Your task to perform on an android device: Clear all items from cart on bestbuy.com. Add macbook pro to the cart on bestbuy.com, then select checkout. Image 0: 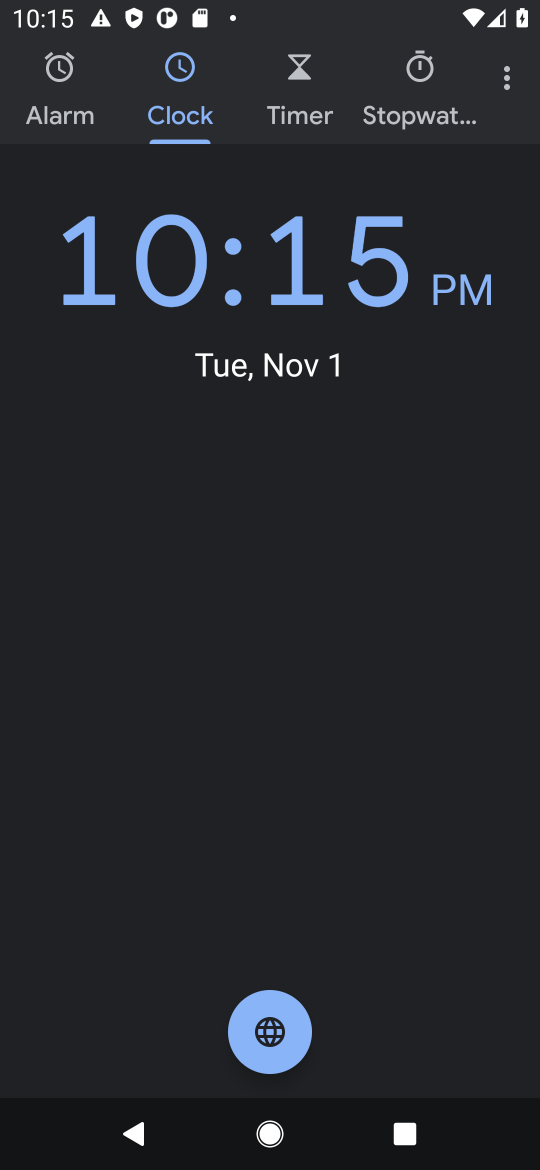
Step 0: press home button
Your task to perform on an android device: Clear all items from cart on bestbuy.com. Add macbook pro to the cart on bestbuy.com, then select checkout. Image 1: 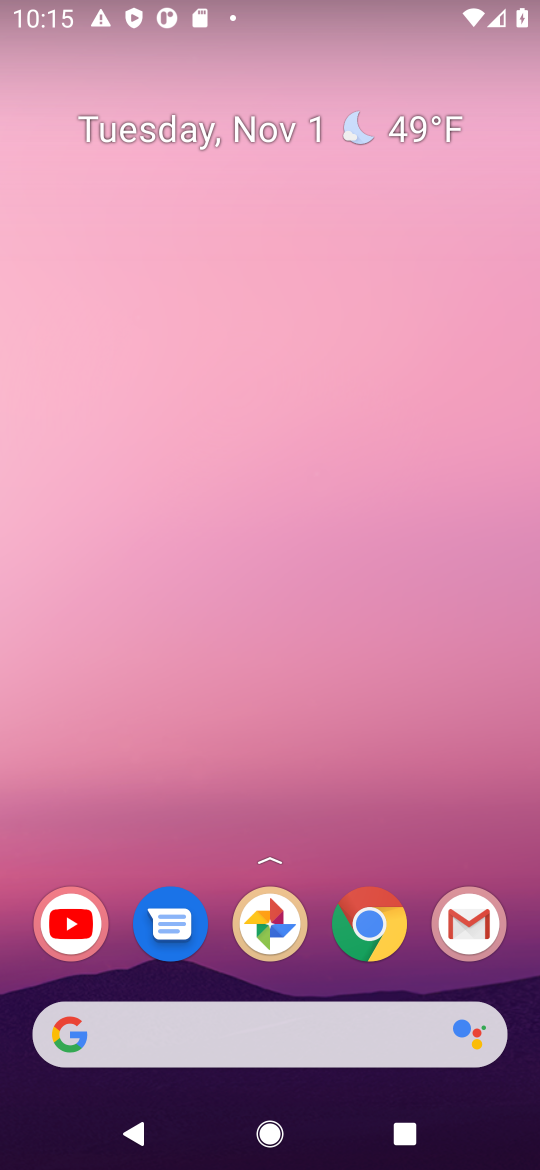
Step 1: click (380, 937)
Your task to perform on an android device: Clear all items from cart on bestbuy.com. Add macbook pro to the cart on bestbuy.com, then select checkout. Image 2: 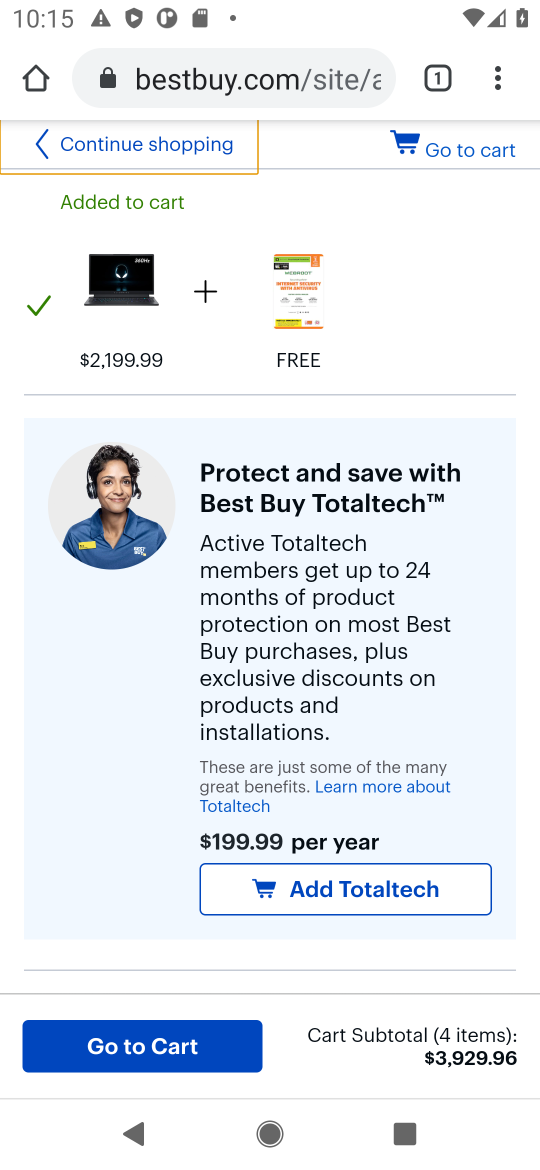
Step 2: click (269, 87)
Your task to perform on an android device: Clear all items from cart on bestbuy.com. Add macbook pro to the cart on bestbuy.com, then select checkout. Image 3: 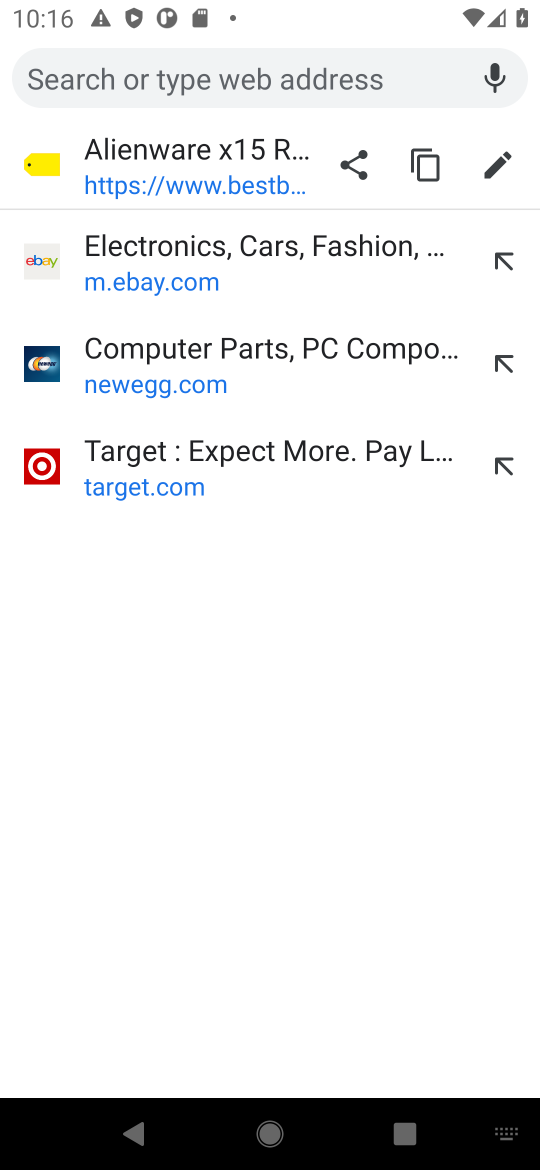
Step 3: press back button
Your task to perform on an android device: Clear all items from cart on bestbuy.com. Add macbook pro to the cart on bestbuy.com, then select checkout. Image 4: 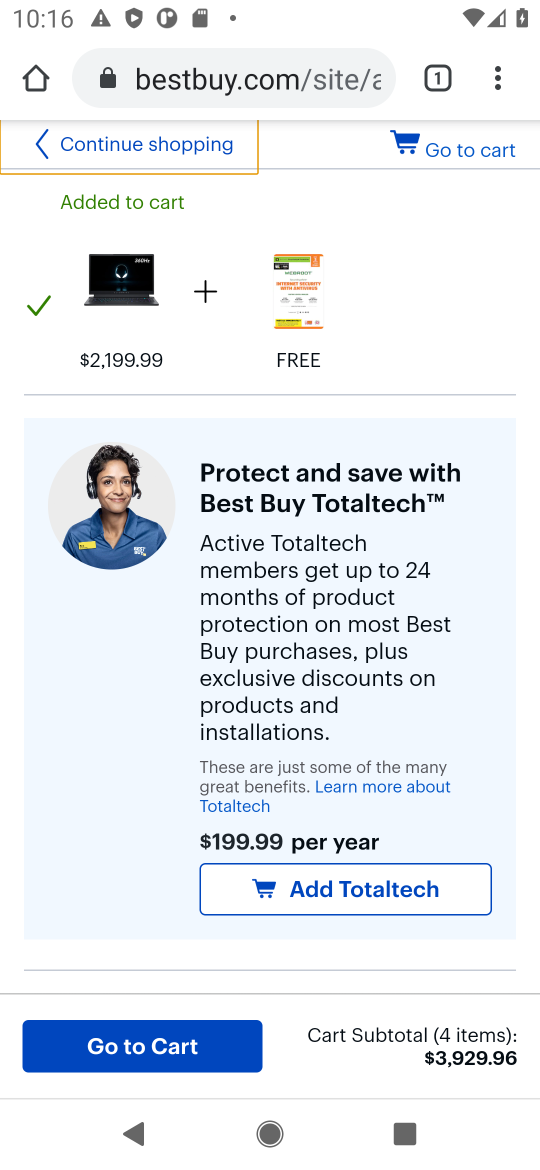
Step 4: press back button
Your task to perform on an android device: Clear all items from cart on bestbuy.com. Add macbook pro to the cart on bestbuy.com, then select checkout. Image 5: 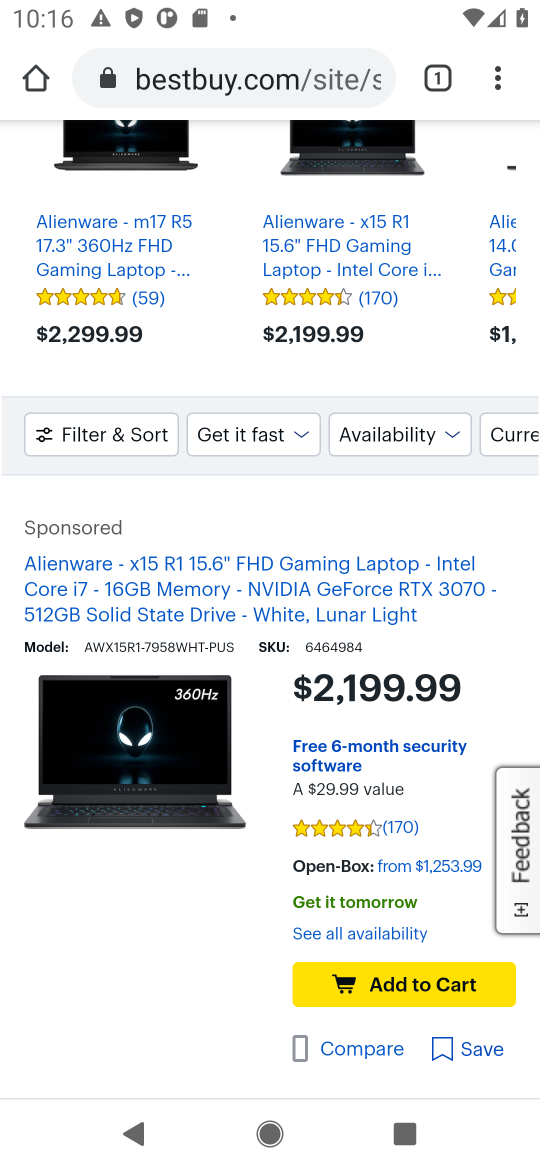
Step 5: drag from (386, 627) to (328, 1049)
Your task to perform on an android device: Clear all items from cart on bestbuy.com. Add macbook pro to the cart on bestbuy.com, then select checkout. Image 6: 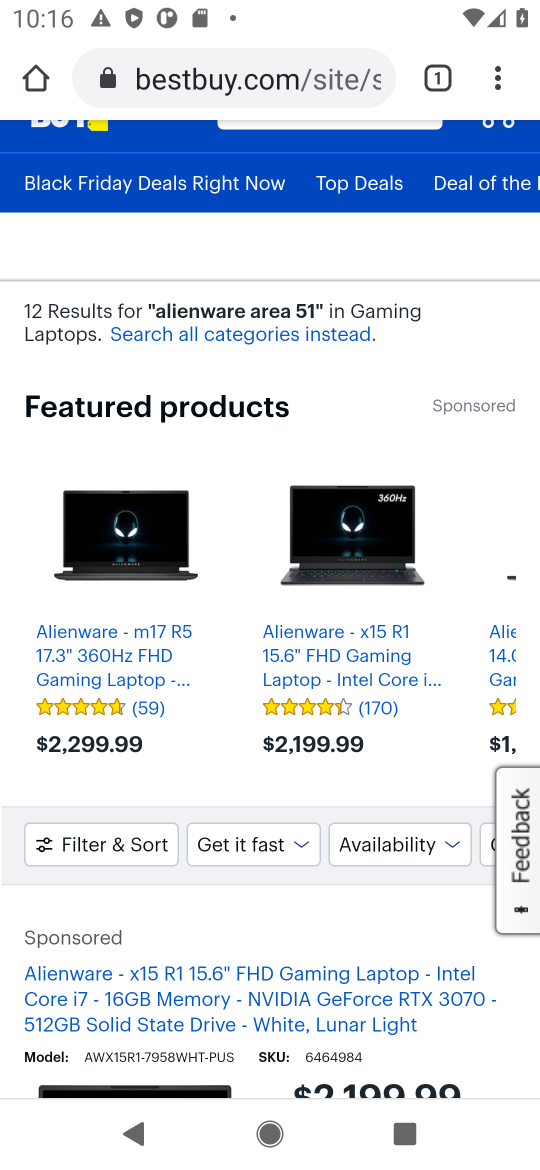
Step 6: drag from (476, 347) to (417, 634)
Your task to perform on an android device: Clear all items from cart on bestbuy.com. Add macbook pro to the cart on bestbuy.com, then select checkout. Image 7: 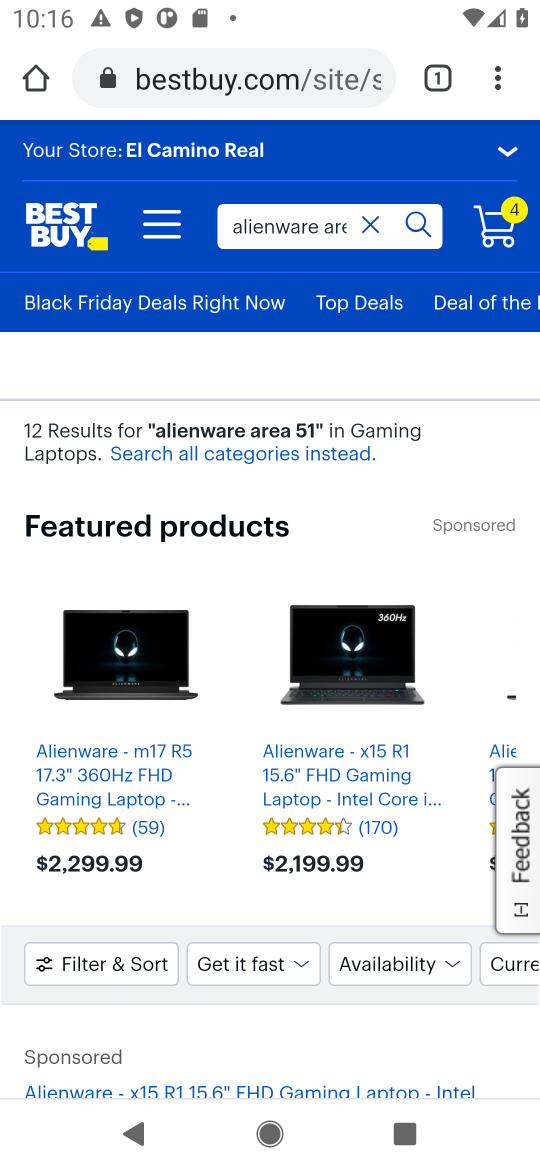
Step 7: click (496, 225)
Your task to perform on an android device: Clear all items from cart on bestbuy.com. Add macbook pro to the cart on bestbuy.com, then select checkout. Image 8: 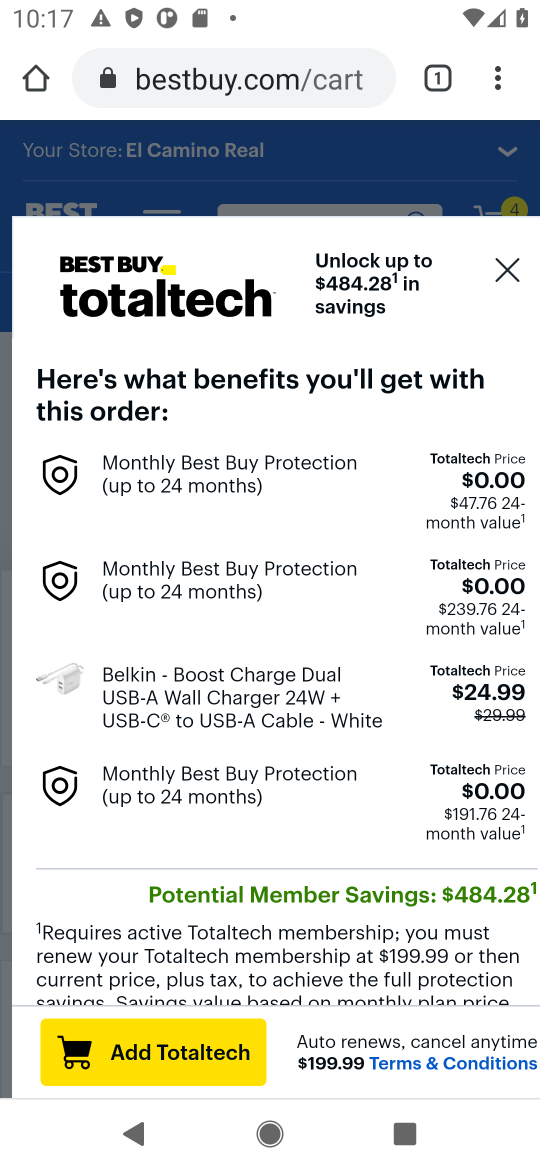
Step 8: click (509, 270)
Your task to perform on an android device: Clear all items from cart on bestbuy.com. Add macbook pro to the cart on bestbuy.com, then select checkout. Image 9: 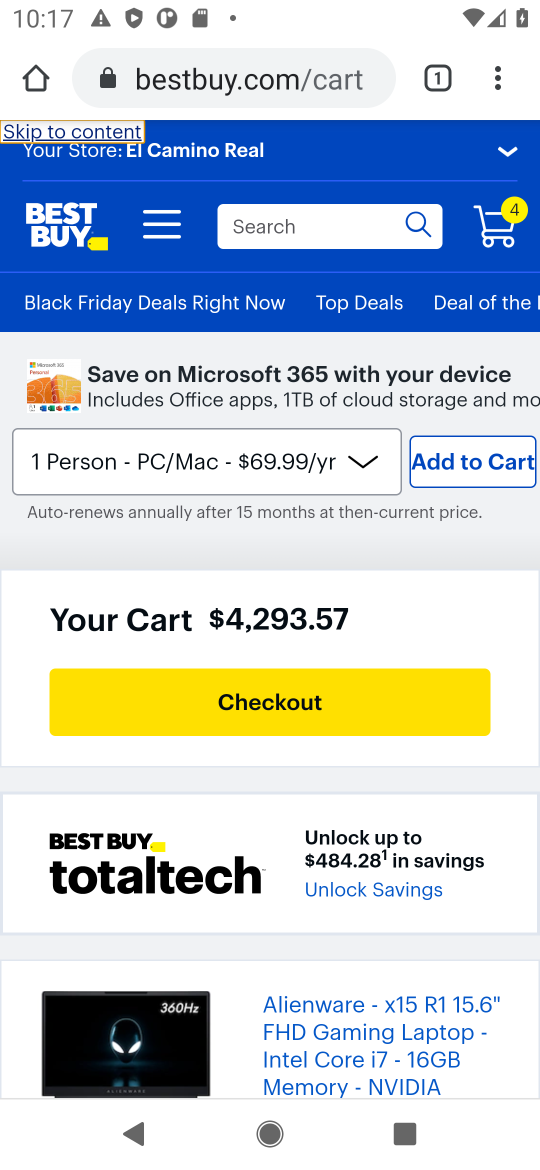
Step 9: drag from (482, 794) to (410, 430)
Your task to perform on an android device: Clear all items from cart on bestbuy.com. Add macbook pro to the cart on bestbuy.com, then select checkout. Image 10: 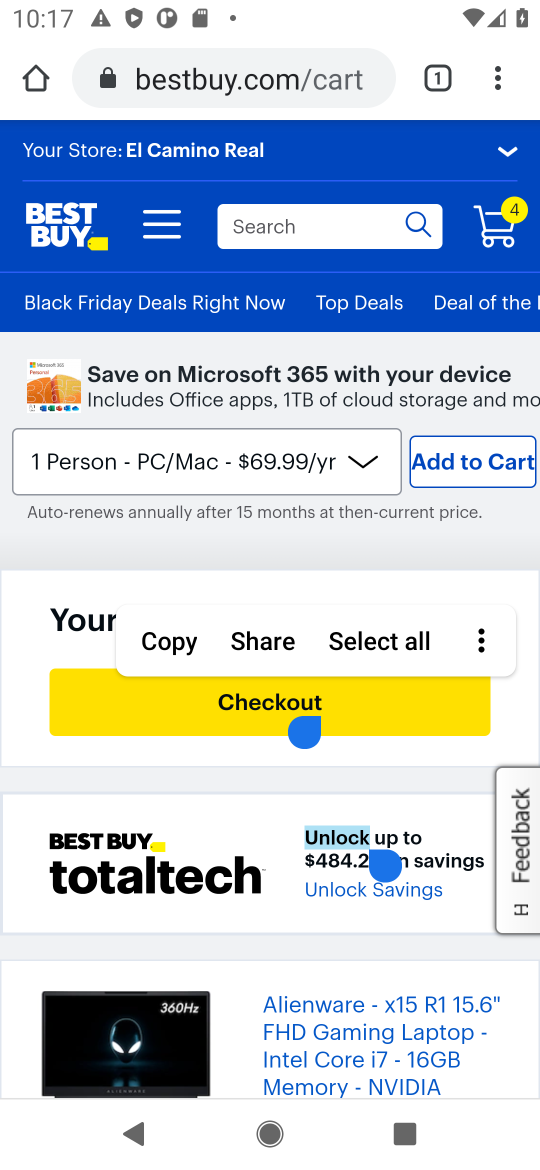
Step 10: drag from (306, 551) to (296, 274)
Your task to perform on an android device: Clear all items from cart on bestbuy.com. Add macbook pro to the cart on bestbuy.com, then select checkout. Image 11: 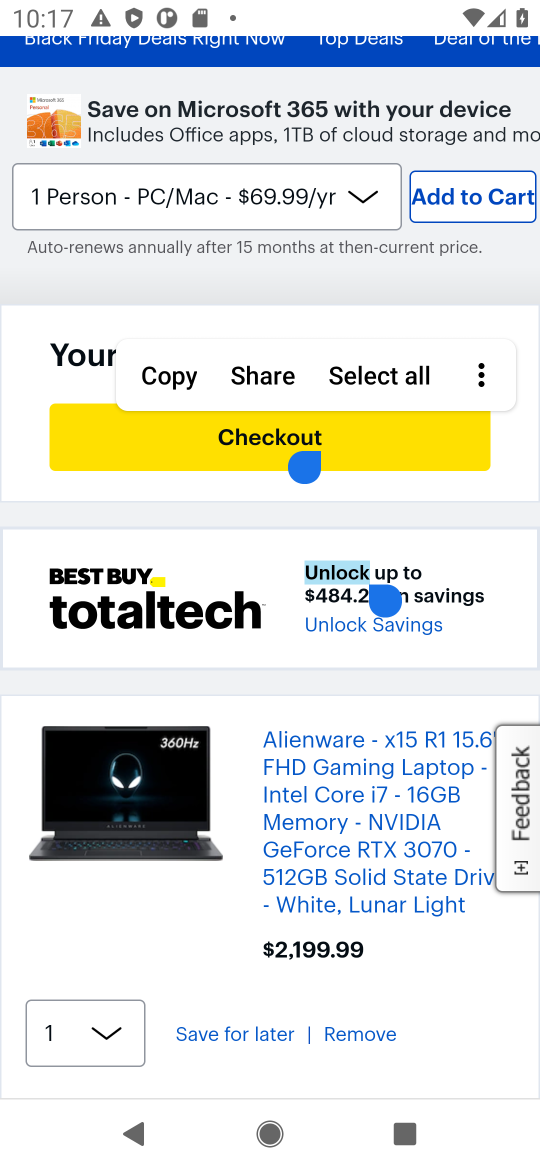
Step 11: click (350, 1031)
Your task to perform on an android device: Clear all items from cart on bestbuy.com. Add macbook pro to the cart on bestbuy.com, then select checkout. Image 12: 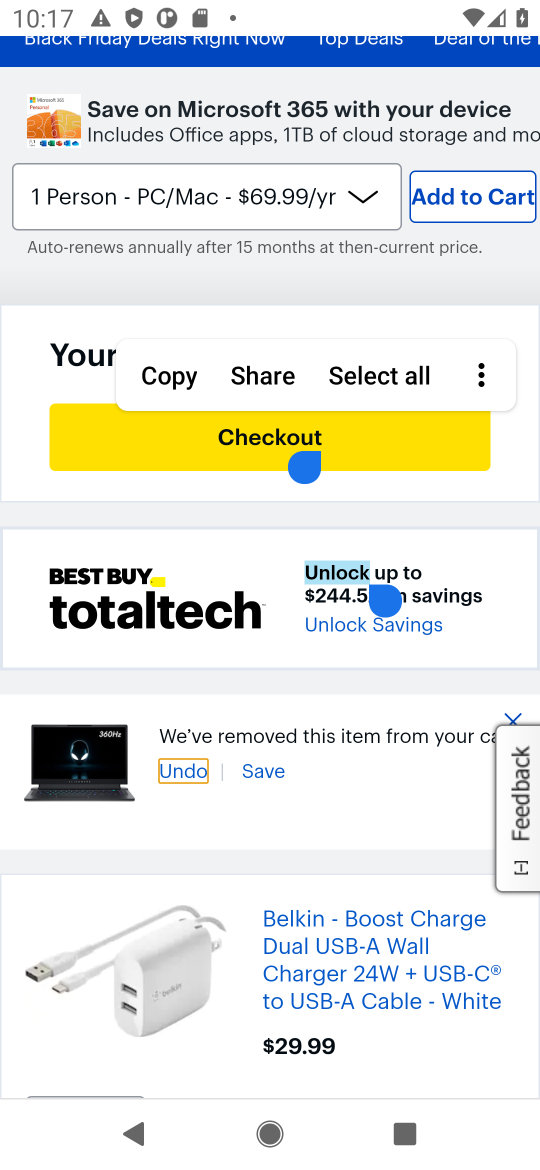
Step 12: drag from (318, 598) to (319, 374)
Your task to perform on an android device: Clear all items from cart on bestbuy.com. Add macbook pro to the cart on bestbuy.com, then select checkout. Image 13: 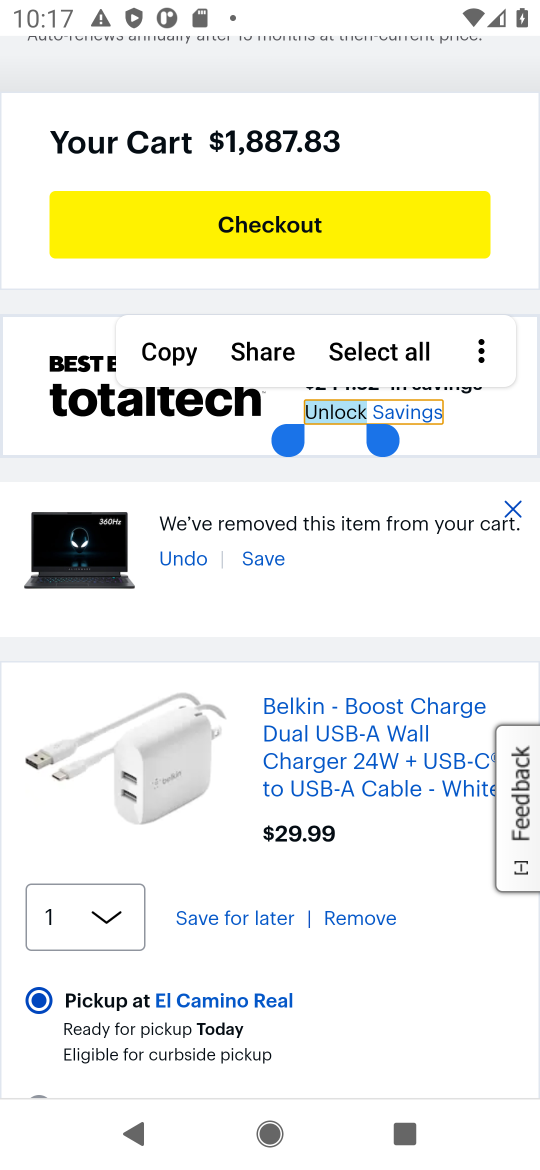
Step 13: click (363, 915)
Your task to perform on an android device: Clear all items from cart on bestbuy.com. Add macbook pro to the cart on bestbuy.com, then select checkout. Image 14: 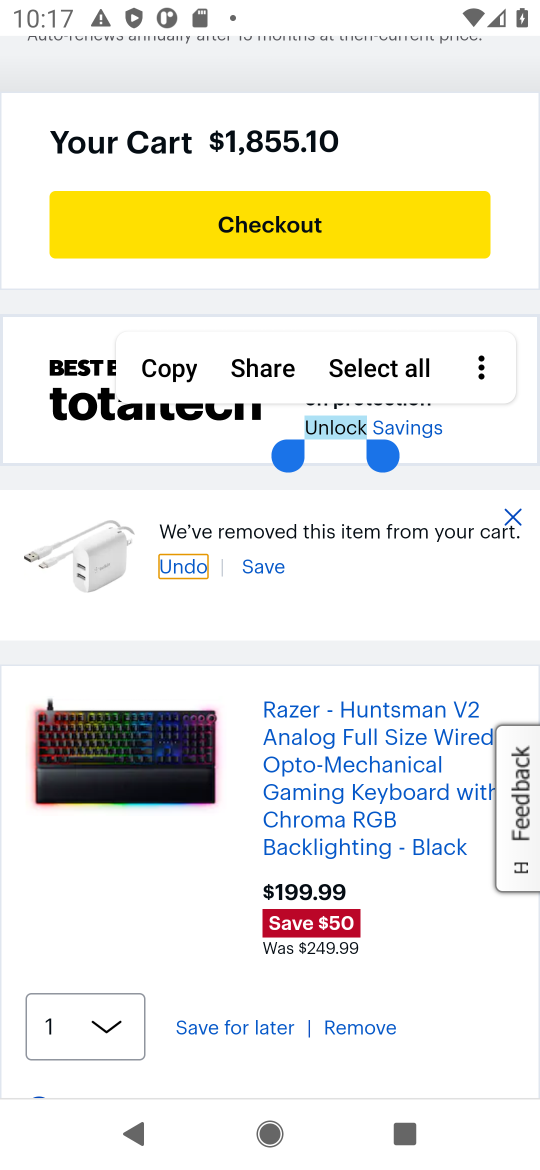
Step 14: click (362, 1024)
Your task to perform on an android device: Clear all items from cart on bestbuy.com. Add macbook pro to the cart on bestbuy.com, then select checkout. Image 15: 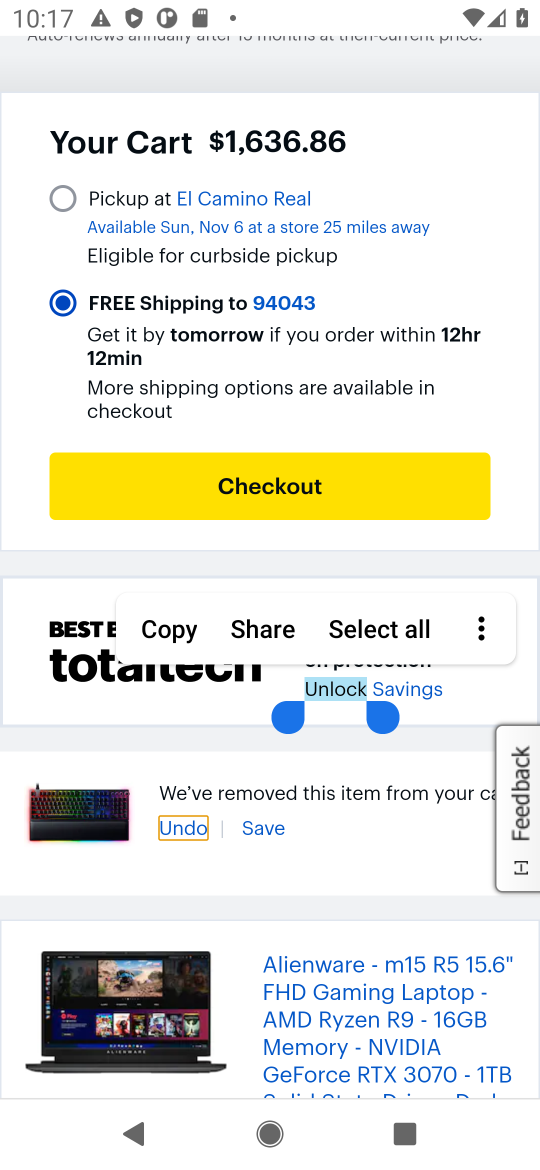
Step 15: drag from (323, 596) to (334, 448)
Your task to perform on an android device: Clear all items from cart on bestbuy.com. Add macbook pro to the cart on bestbuy.com, then select checkout. Image 16: 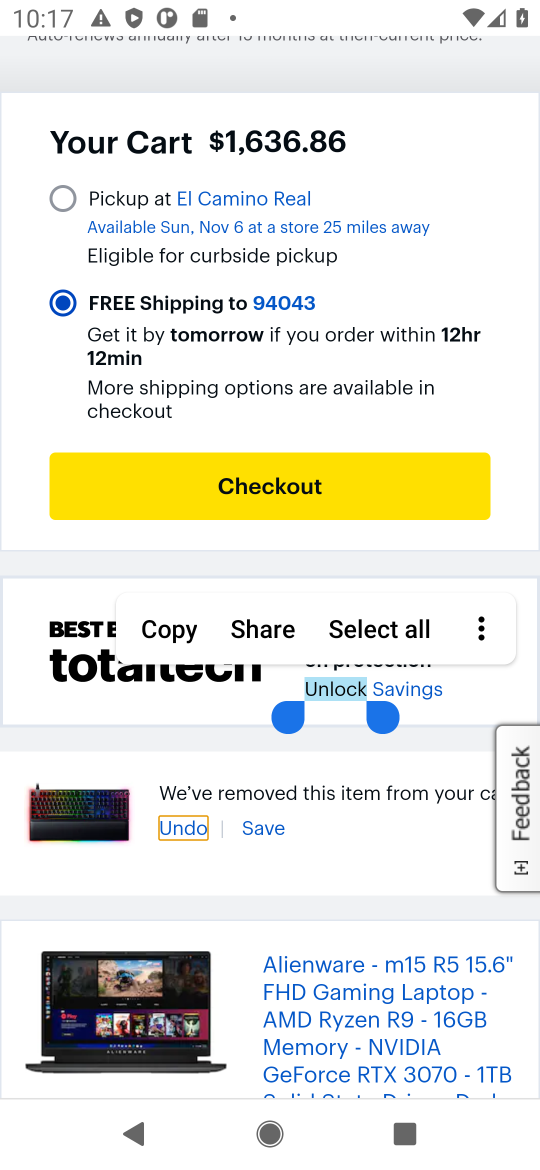
Step 16: click (349, 905)
Your task to perform on an android device: Clear all items from cart on bestbuy.com. Add macbook pro to the cart on bestbuy.com, then select checkout. Image 17: 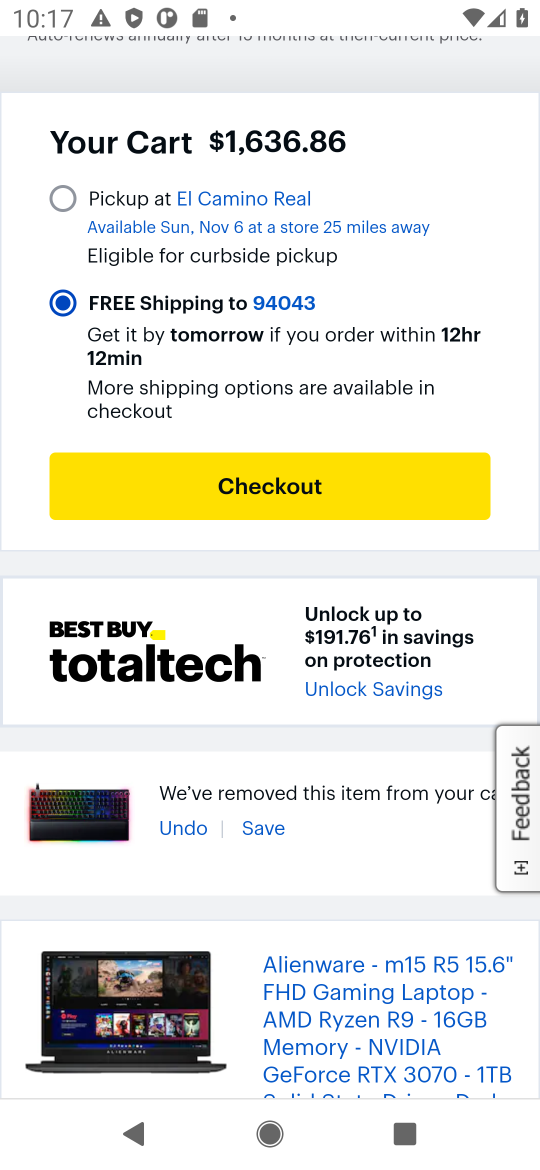
Step 17: drag from (381, 849) to (336, 317)
Your task to perform on an android device: Clear all items from cart on bestbuy.com. Add macbook pro to the cart on bestbuy.com, then select checkout. Image 18: 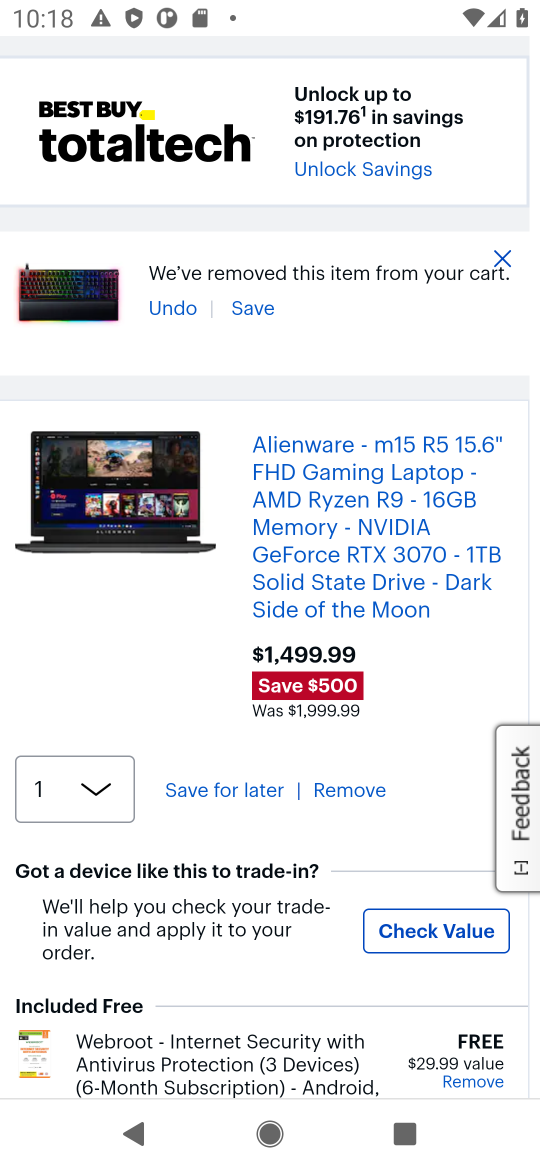
Step 18: click (356, 787)
Your task to perform on an android device: Clear all items from cart on bestbuy.com. Add macbook pro to the cart on bestbuy.com, then select checkout. Image 19: 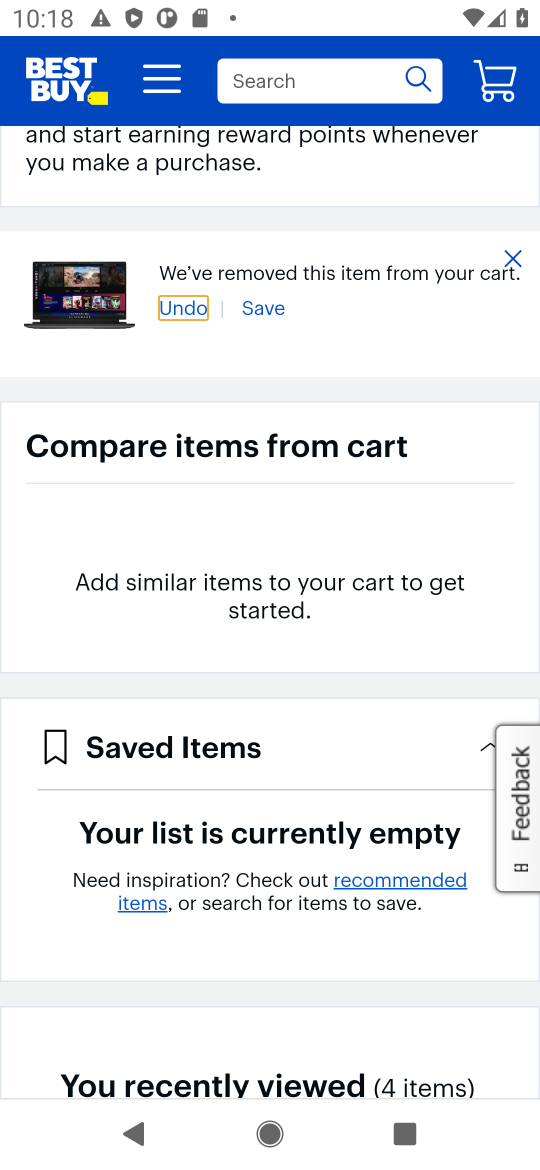
Step 19: drag from (376, 372) to (349, 710)
Your task to perform on an android device: Clear all items from cart on bestbuy.com. Add macbook pro to the cart on bestbuy.com, then select checkout. Image 20: 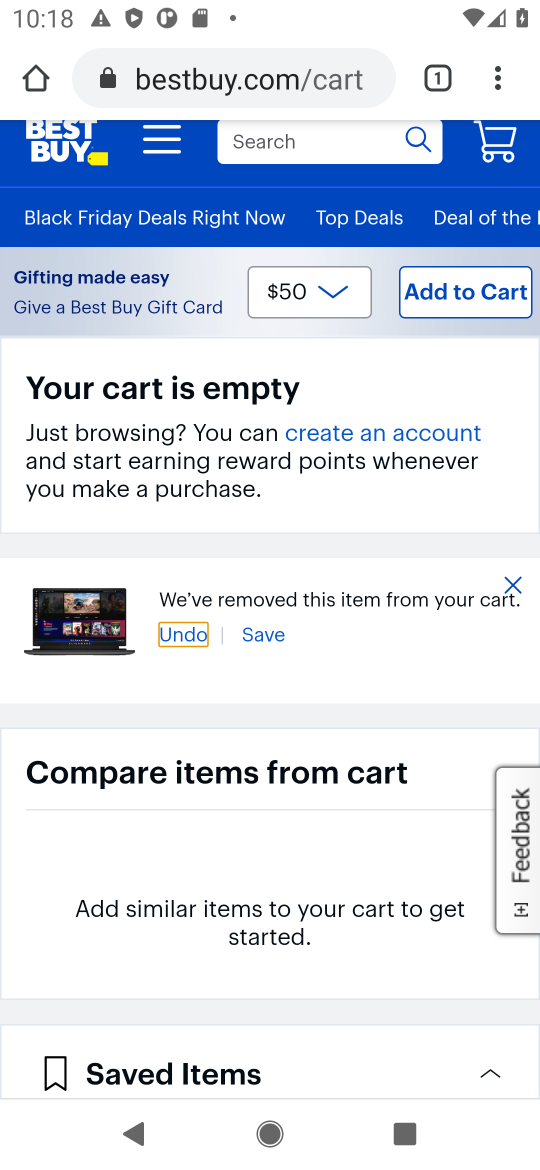
Step 20: click (286, 149)
Your task to perform on an android device: Clear all items from cart on bestbuy.com. Add macbook pro to the cart on bestbuy.com, then select checkout. Image 21: 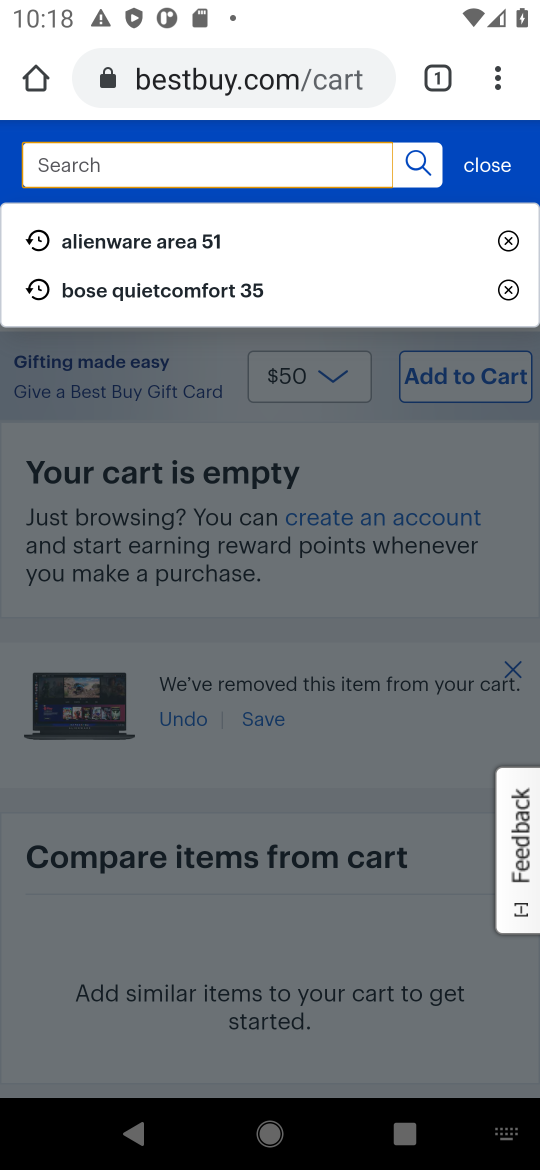
Step 21: type "macbook pro"
Your task to perform on an android device: Clear all items from cart on bestbuy.com. Add macbook pro to the cart on bestbuy.com, then select checkout. Image 22: 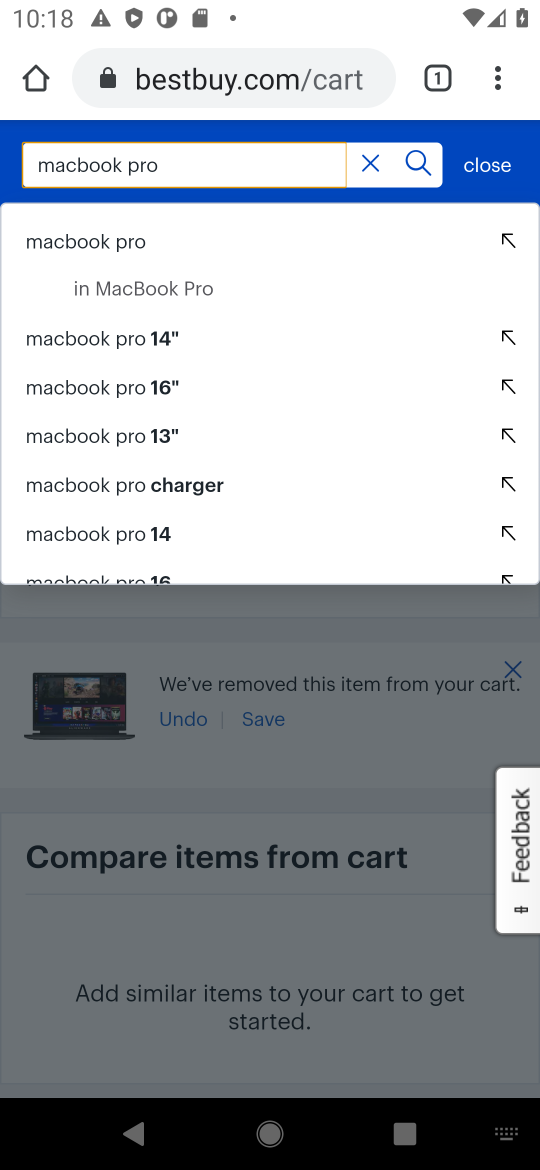
Step 22: click (99, 242)
Your task to perform on an android device: Clear all items from cart on bestbuy.com. Add macbook pro to the cart on bestbuy.com, then select checkout. Image 23: 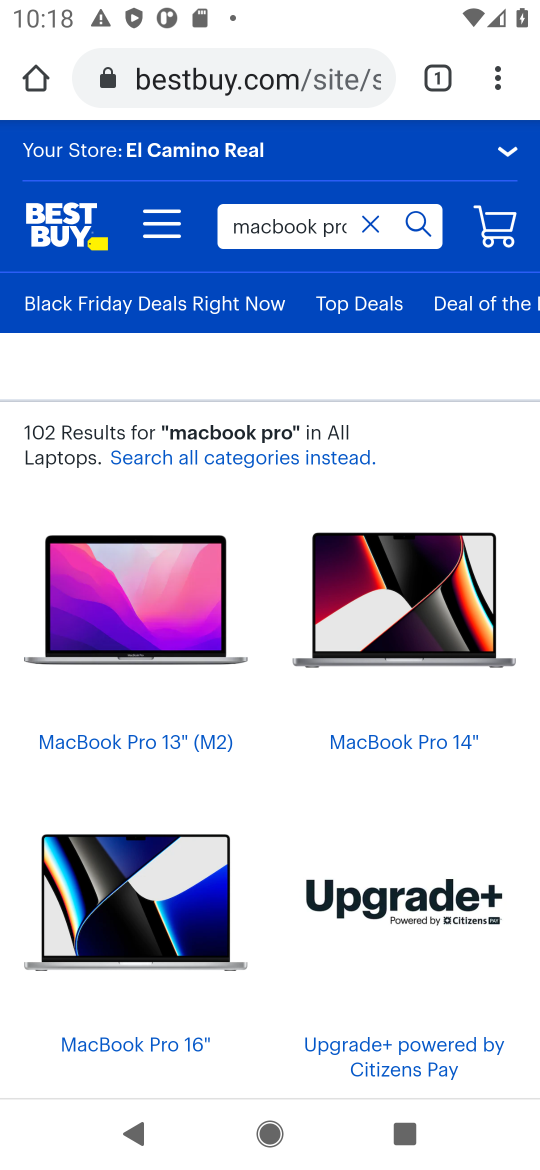
Step 23: click (138, 615)
Your task to perform on an android device: Clear all items from cart on bestbuy.com. Add macbook pro to the cart on bestbuy.com, then select checkout. Image 24: 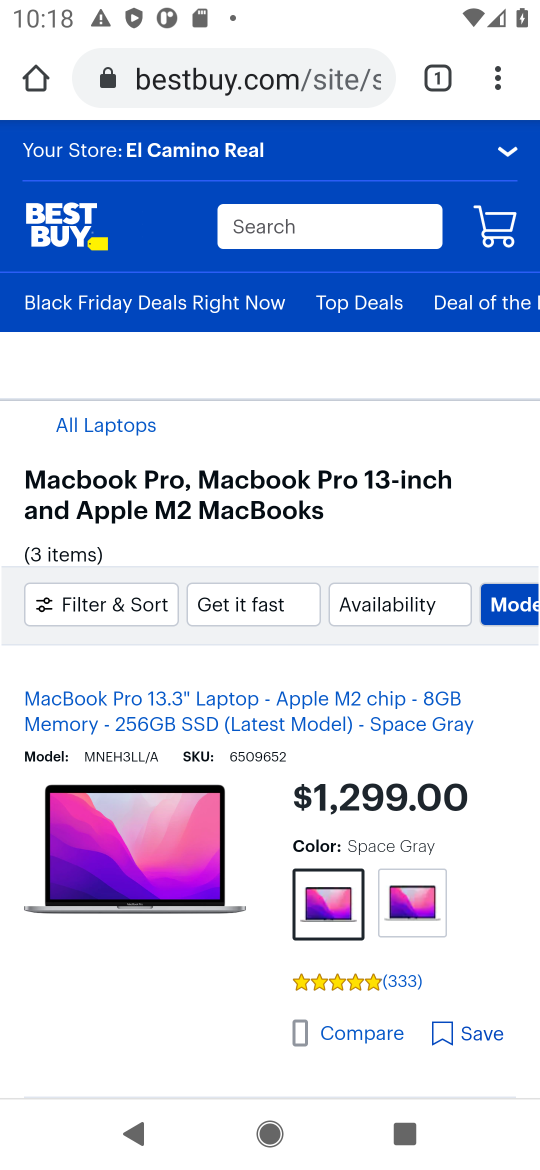
Step 24: click (115, 878)
Your task to perform on an android device: Clear all items from cart on bestbuy.com. Add macbook pro to the cart on bestbuy.com, then select checkout. Image 25: 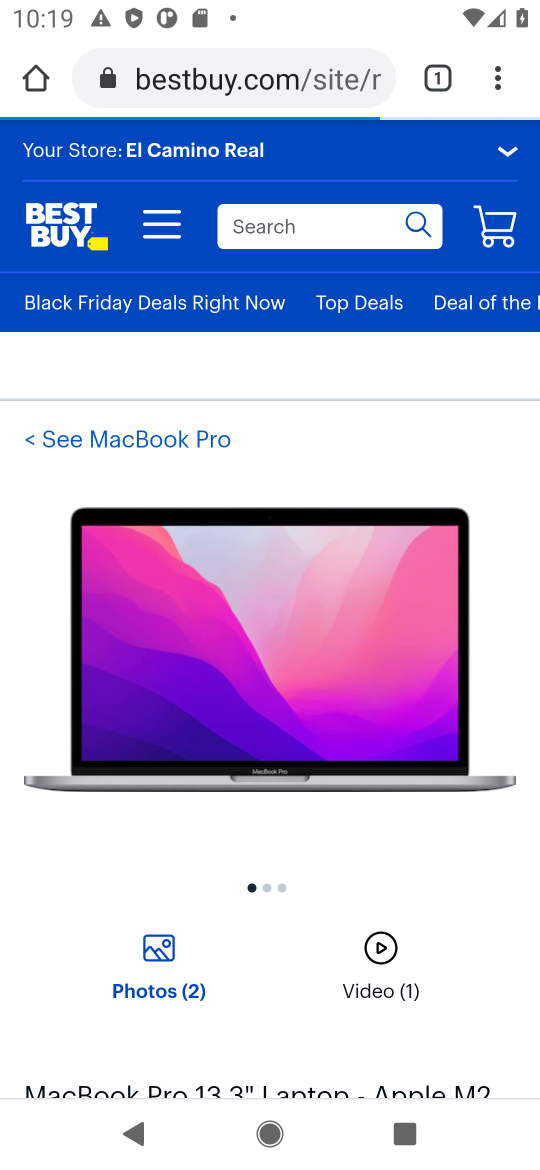
Step 25: drag from (272, 1025) to (222, 134)
Your task to perform on an android device: Clear all items from cart on bestbuy.com. Add macbook pro to the cart on bestbuy.com, then select checkout. Image 26: 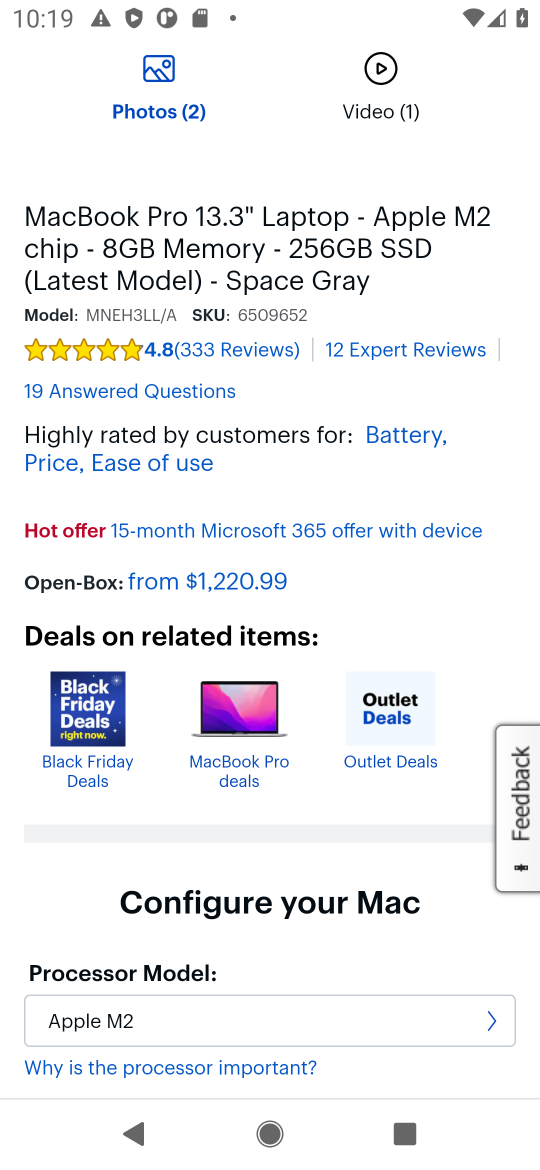
Step 26: drag from (315, 865) to (209, 31)
Your task to perform on an android device: Clear all items from cart on bestbuy.com. Add macbook pro to the cart on bestbuy.com, then select checkout. Image 27: 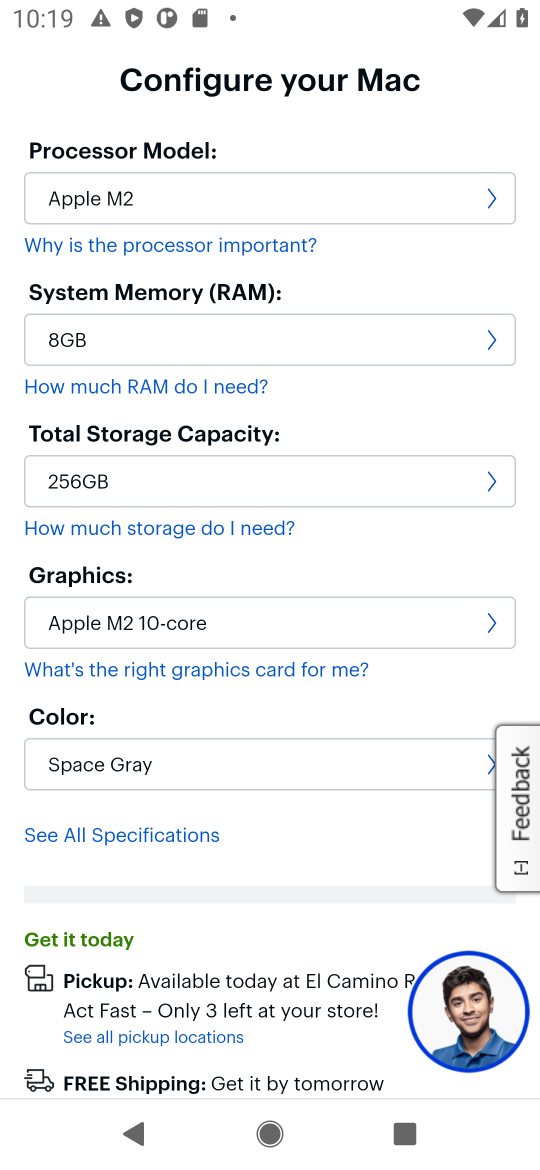
Step 27: drag from (239, 883) to (182, 291)
Your task to perform on an android device: Clear all items from cart on bestbuy.com. Add macbook pro to the cart on bestbuy.com, then select checkout. Image 28: 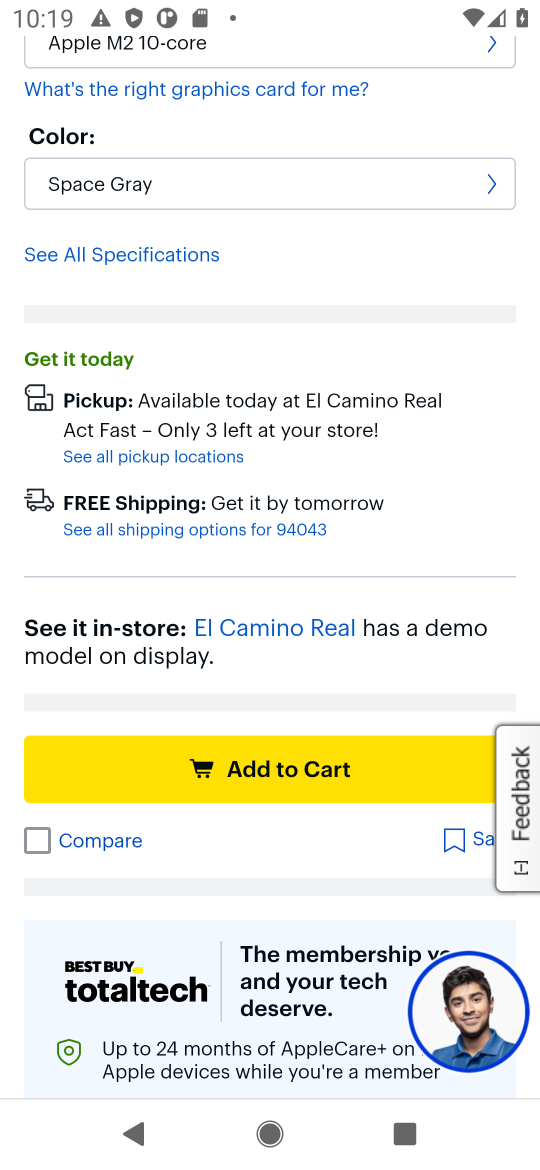
Step 28: click (264, 781)
Your task to perform on an android device: Clear all items from cart on bestbuy.com. Add macbook pro to the cart on bestbuy.com, then select checkout. Image 29: 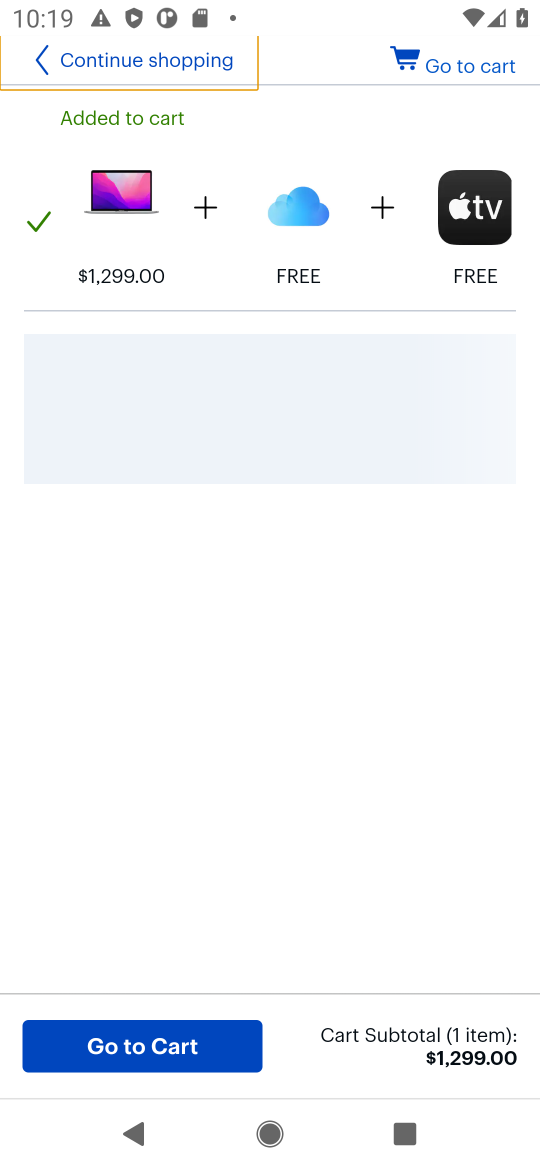
Step 29: click (162, 1054)
Your task to perform on an android device: Clear all items from cart on bestbuy.com. Add macbook pro to the cart on bestbuy.com, then select checkout. Image 30: 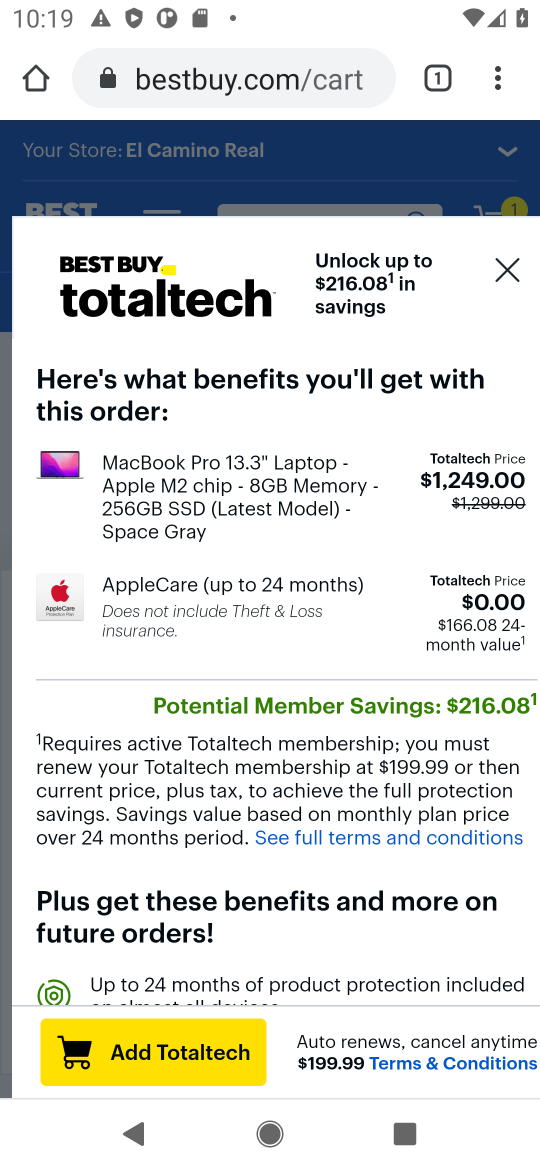
Step 30: click (512, 266)
Your task to perform on an android device: Clear all items from cart on bestbuy.com. Add macbook pro to the cart on bestbuy.com, then select checkout. Image 31: 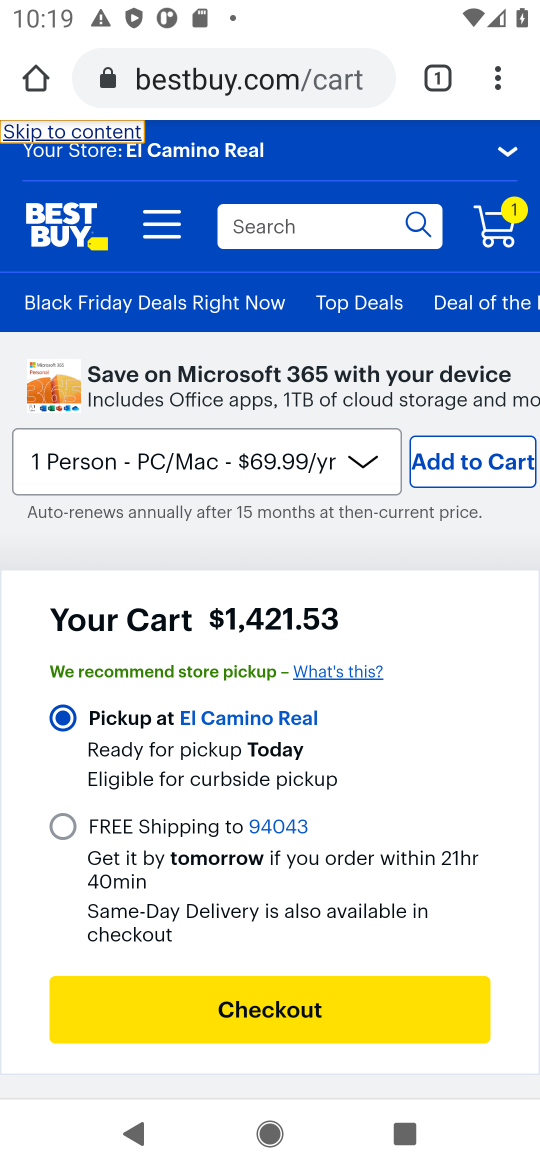
Step 31: click (279, 1017)
Your task to perform on an android device: Clear all items from cart on bestbuy.com. Add macbook pro to the cart on bestbuy.com, then select checkout. Image 32: 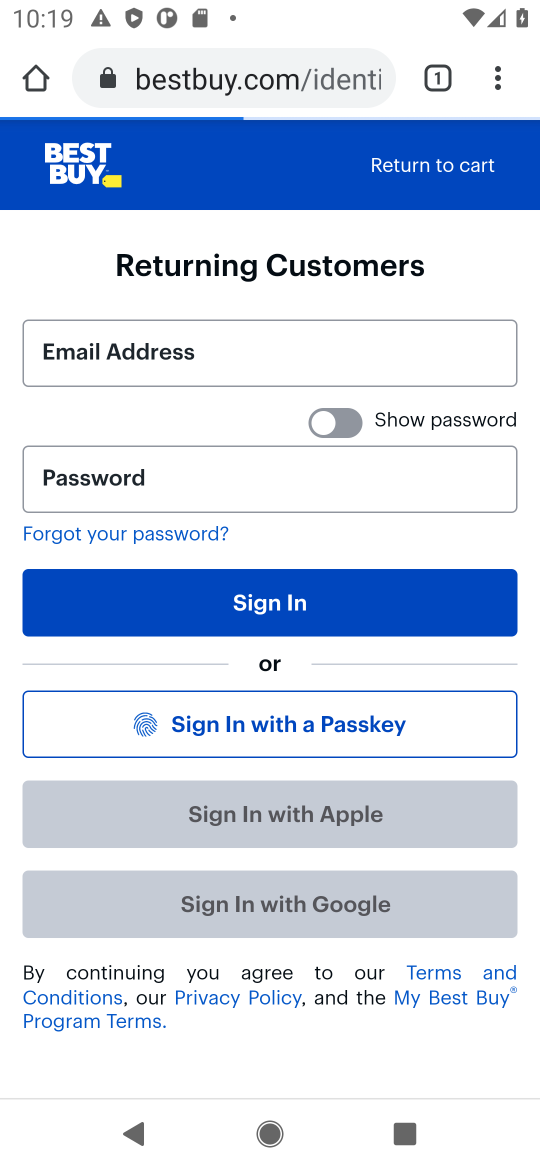
Step 32: task complete